Your task to perform on an android device: Open my contact list Image 0: 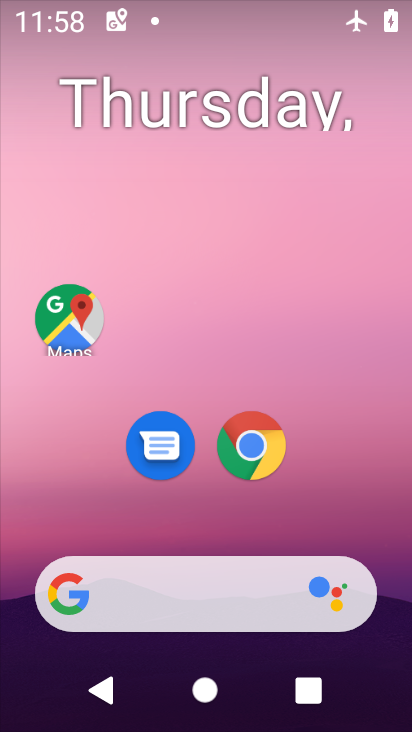
Step 0: drag from (347, 528) to (320, 135)
Your task to perform on an android device: Open my contact list Image 1: 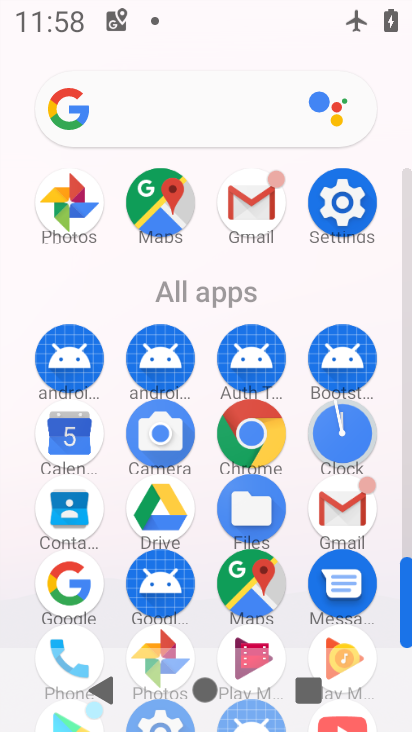
Step 1: click (73, 502)
Your task to perform on an android device: Open my contact list Image 2: 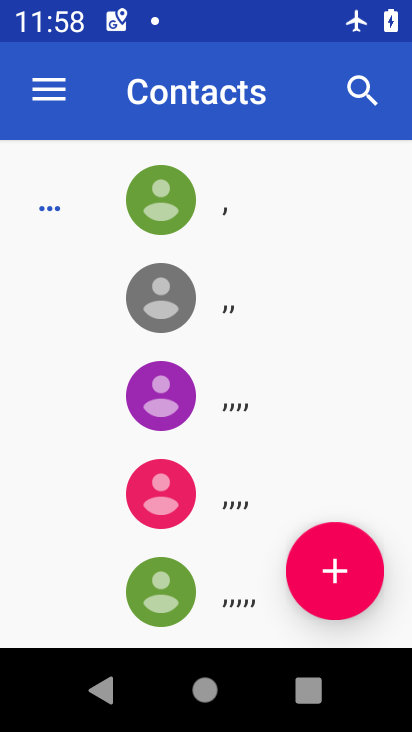
Step 2: task complete